Your task to perform on an android device: turn on wifi Image 0: 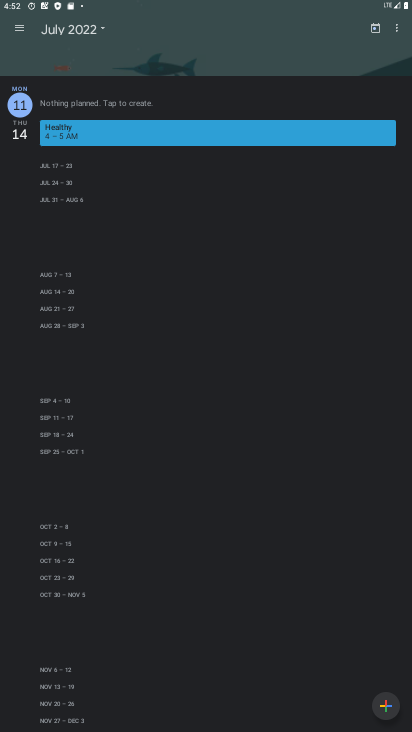
Step 0: press home button
Your task to perform on an android device: turn on wifi Image 1: 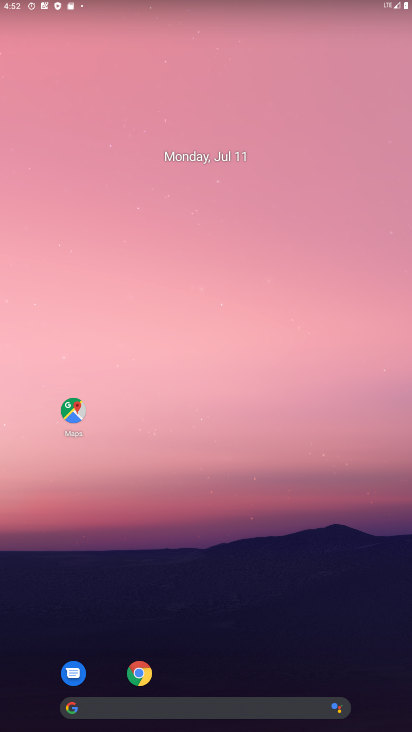
Step 1: drag from (193, 713) to (196, 132)
Your task to perform on an android device: turn on wifi Image 2: 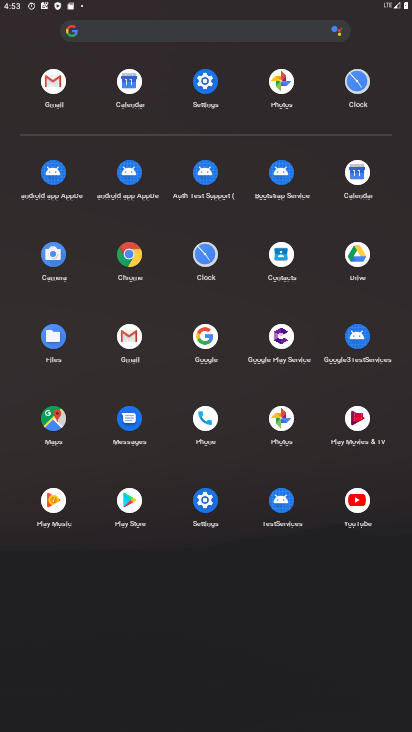
Step 2: click (202, 80)
Your task to perform on an android device: turn on wifi Image 3: 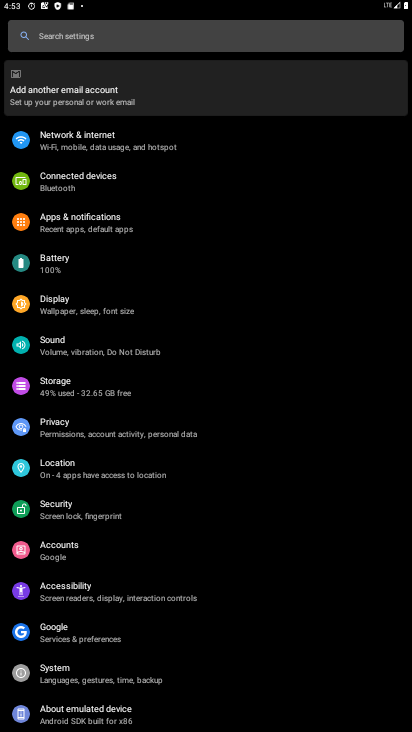
Step 3: click (95, 149)
Your task to perform on an android device: turn on wifi Image 4: 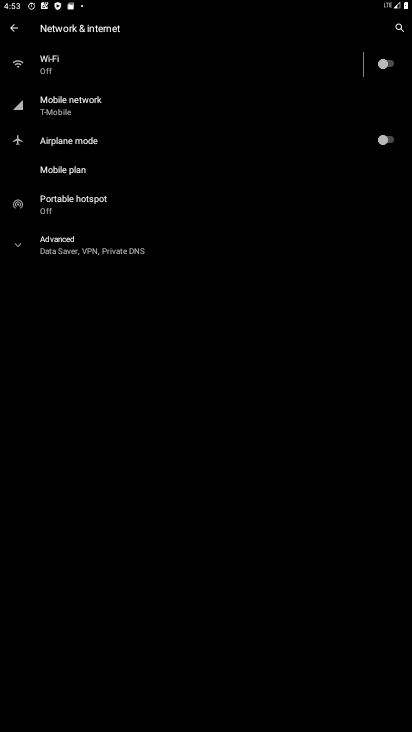
Step 4: click (387, 68)
Your task to perform on an android device: turn on wifi Image 5: 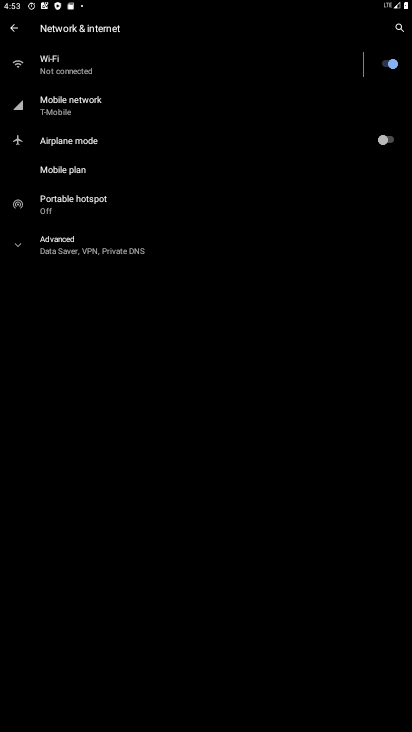
Step 5: task complete